Your task to perform on an android device: turn off javascript in the chrome app Image 0: 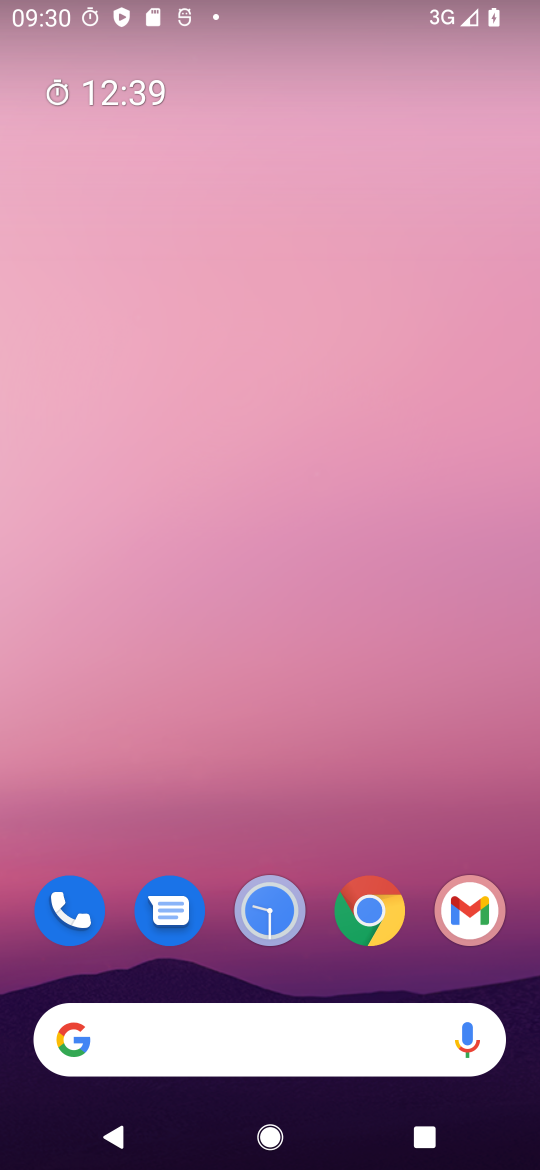
Step 0: drag from (325, 1024) to (380, 1)
Your task to perform on an android device: turn off javascript in the chrome app Image 1: 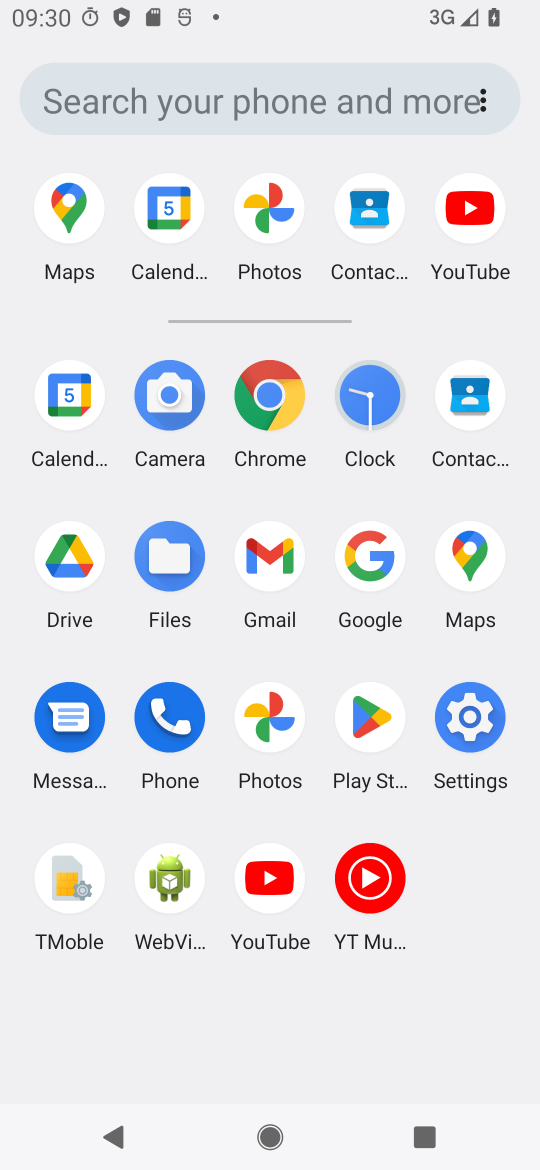
Step 1: click (262, 396)
Your task to perform on an android device: turn off javascript in the chrome app Image 2: 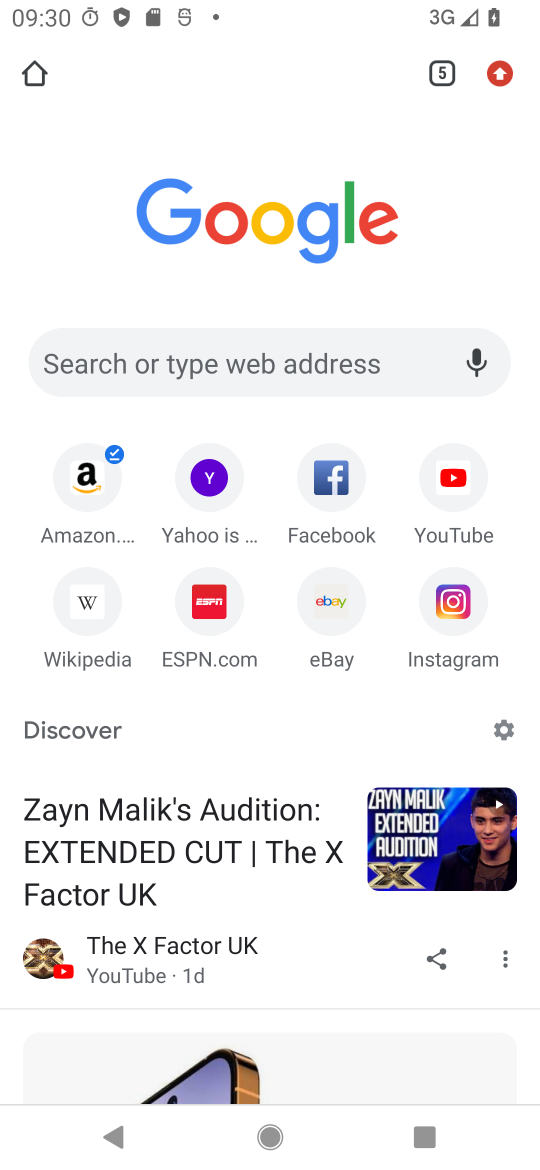
Step 2: click (502, 63)
Your task to perform on an android device: turn off javascript in the chrome app Image 3: 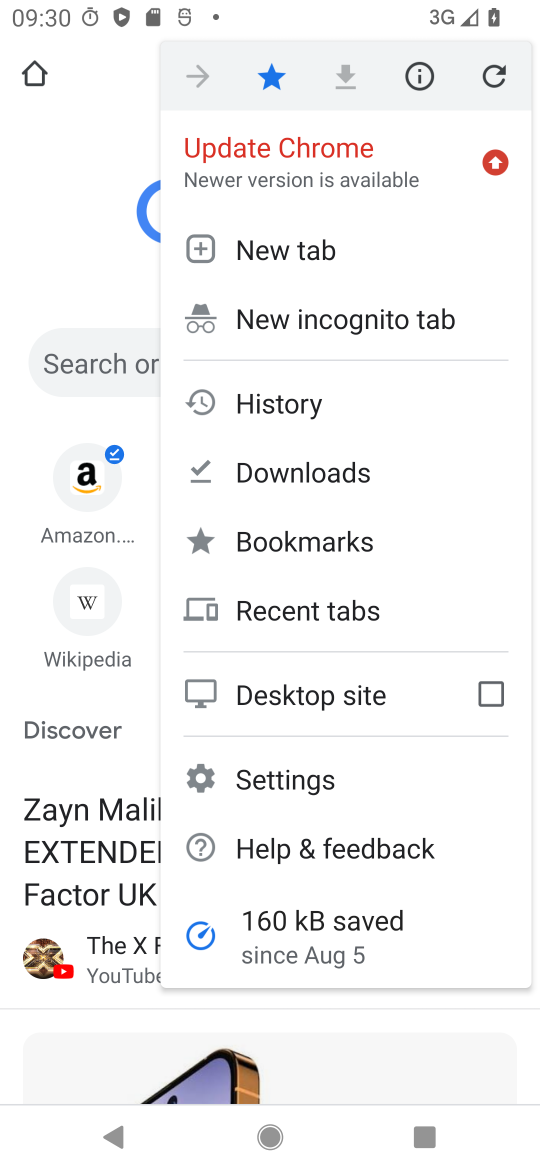
Step 3: click (298, 767)
Your task to perform on an android device: turn off javascript in the chrome app Image 4: 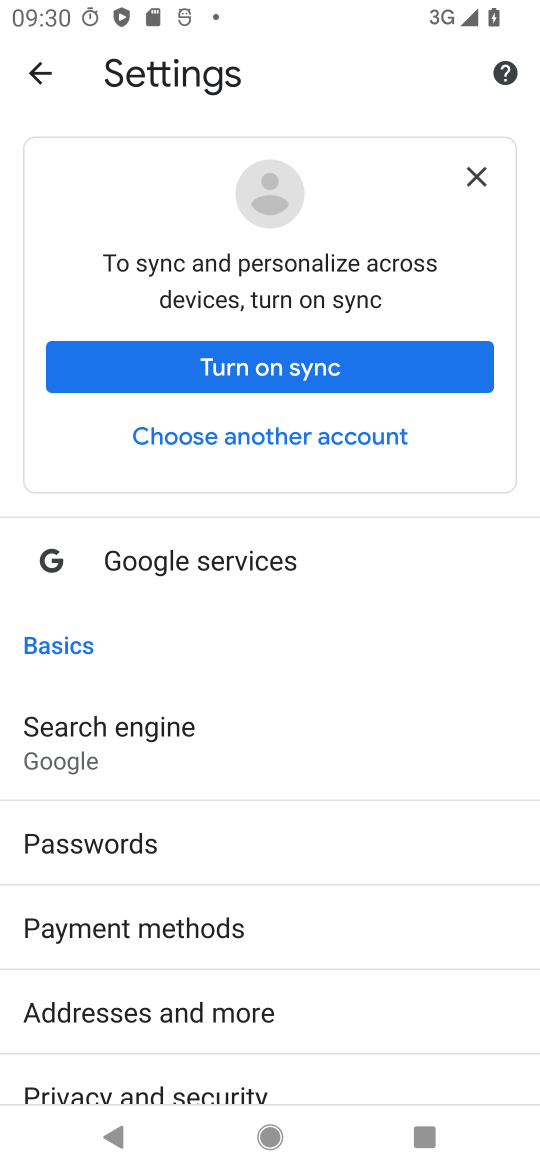
Step 4: drag from (247, 994) to (378, 66)
Your task to perform on an android device: turn off javascript in the chrome app Image 5: 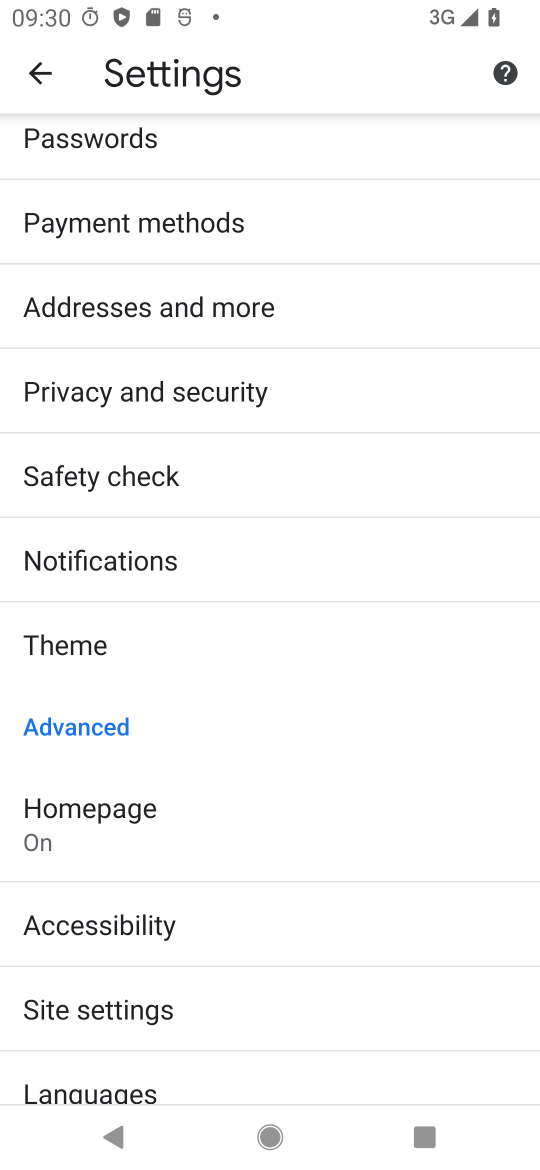
Step 5: click (149, 1007)
Your task to perform on an android device: turn off javascript in the chrome app Image 6: 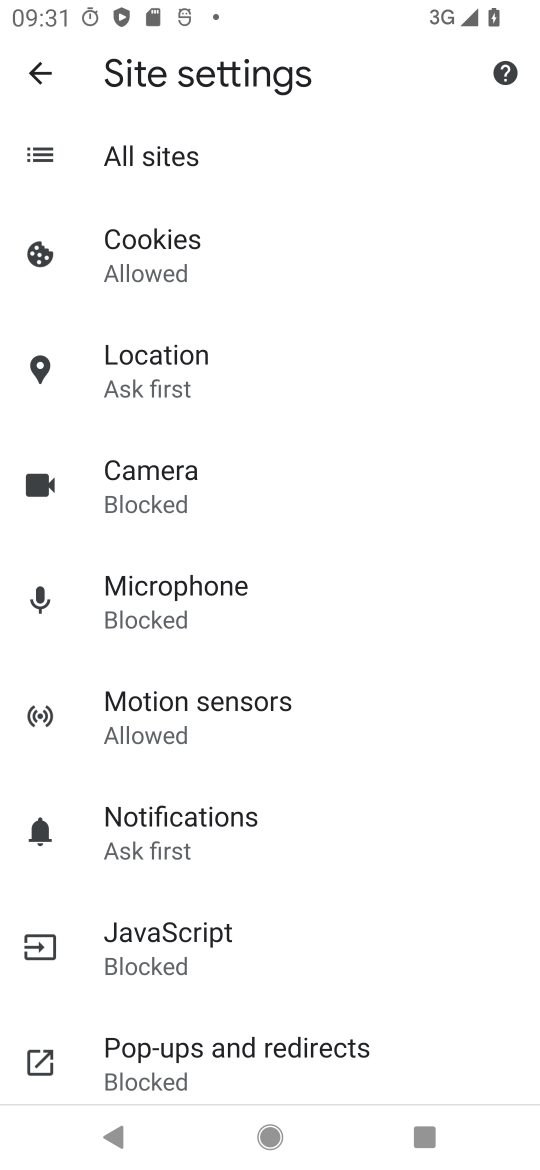
Step 6: click (244, 957)
Your task to perform on an android device: turn off javascript in the chrome app Image 7: 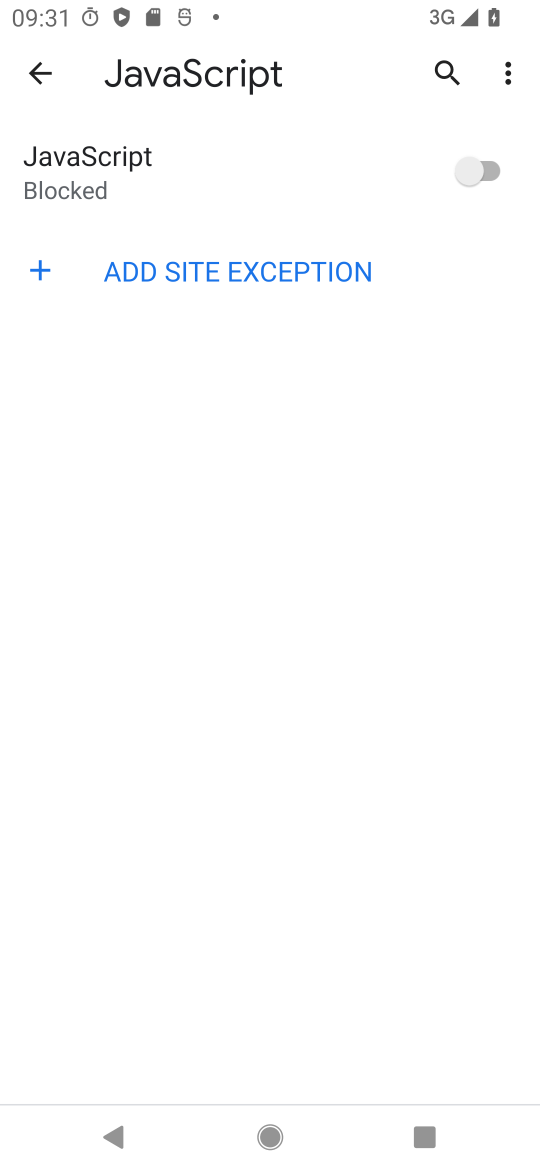
Step 7: task complete